Your task to perform on an android device: turn on notifications settings in the gmail app Image 0: 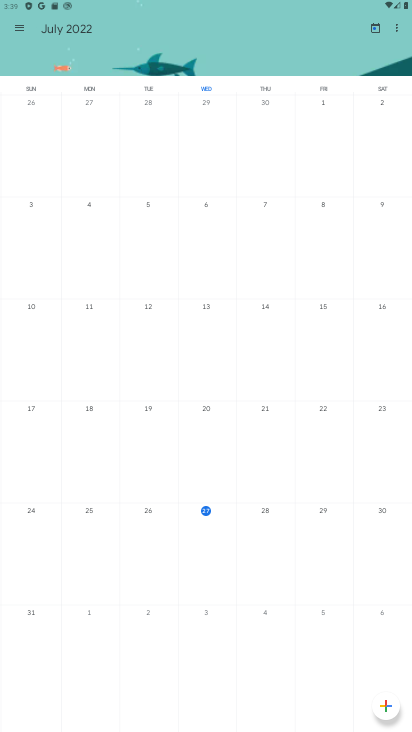
Step 0: press home button
Your task to perform on an android device: turn on notifications settings in the gmail app Image 1: 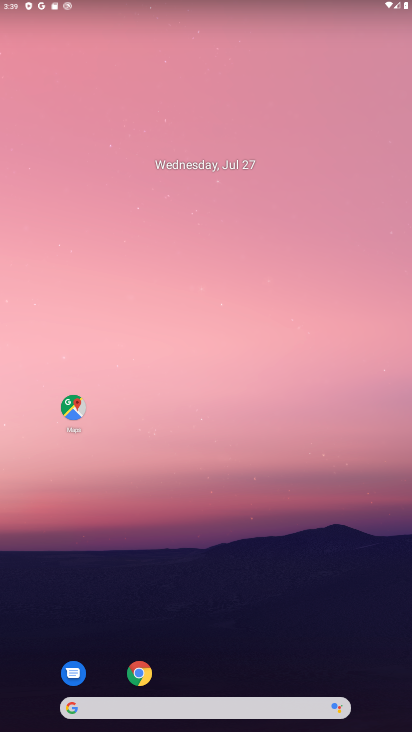
Step 1: drag from (250, 646) to (273, 118)
Your task to perform on an android device: turn on notifications settings in the gmail app Image 2: 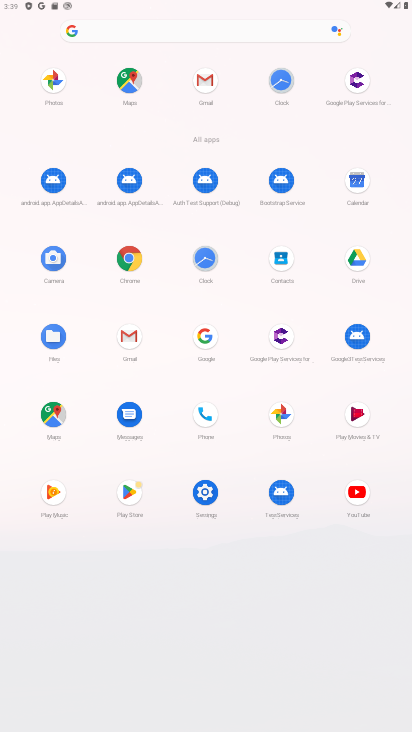
Step 2: click (200, 83)
Your task to perform on an android device: turn on notifications settings in the gmail app Image 3: 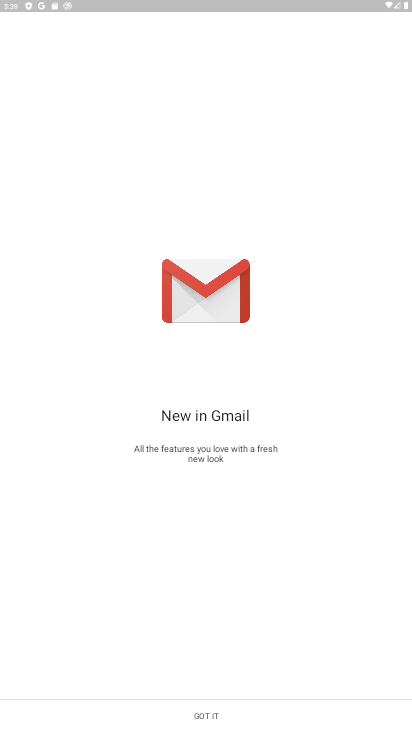
Step 3: click (216, 718)
Your task to perform on an android device: turn on notifications settings in the gmail app Image 4: 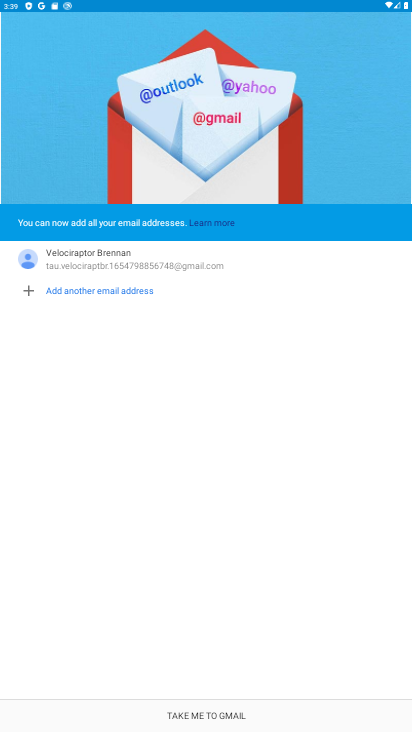
Step 4: click (216, 726)
Your task to perform on an android device: turn on notifications settings in the gmail app Image 5: 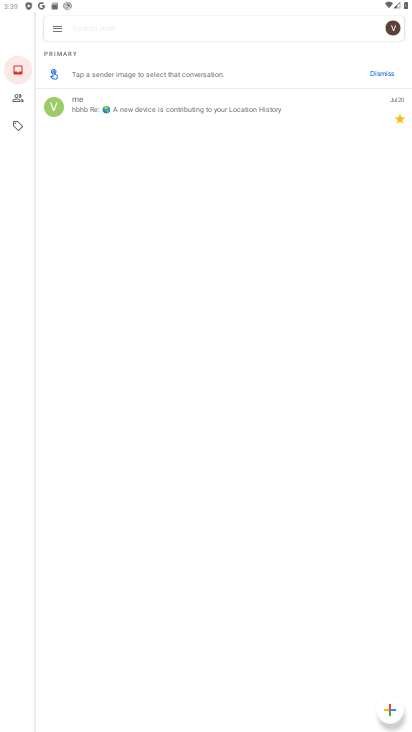
Step 5: click (58, 30)
Your task to perform on an android device: turn on notifications settings in the gmail app Image 6: 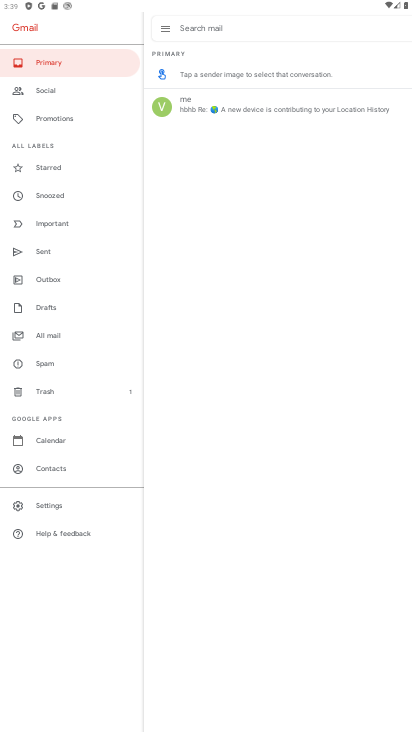
Step 6: click (40, 505)
Your task to perform on an android device: turn on notifications settings in the gmail app Image 7: 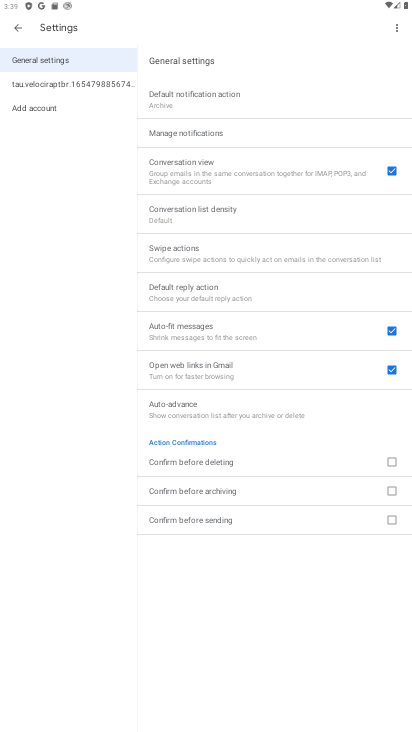
Step 7: click (119, 89)
Your task to perform on an android device: turn on notifications settings in the gmail app Image 8: 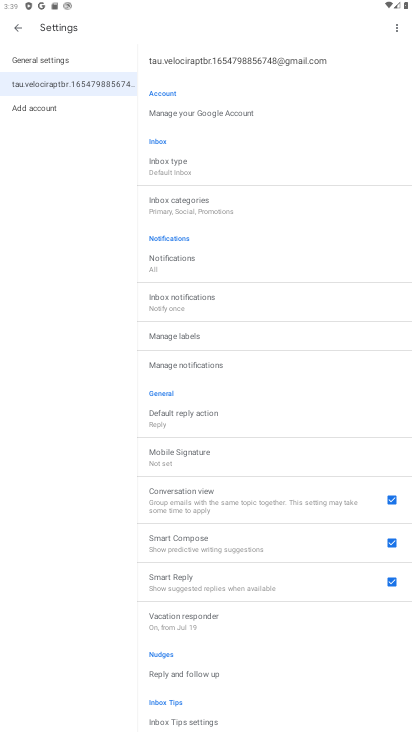
Step 8: click (228, 354)
Your task to perform on an android device: turn on notifications settings in the gmail app Image 9: 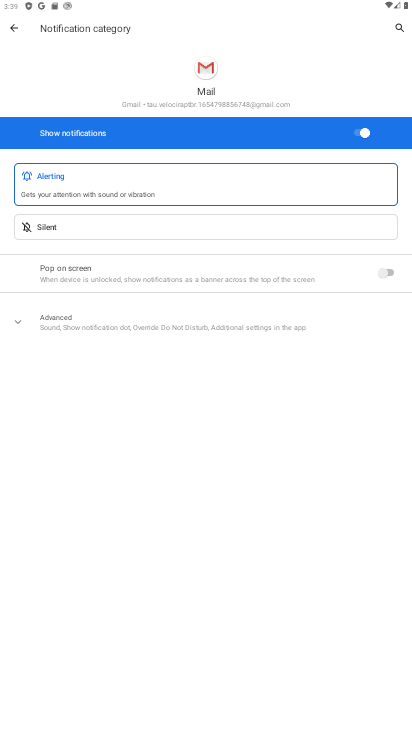
Step 9: click (388, 285)
Your task to perform on an android device: turn on notifications settings in the gmail app Image 10: 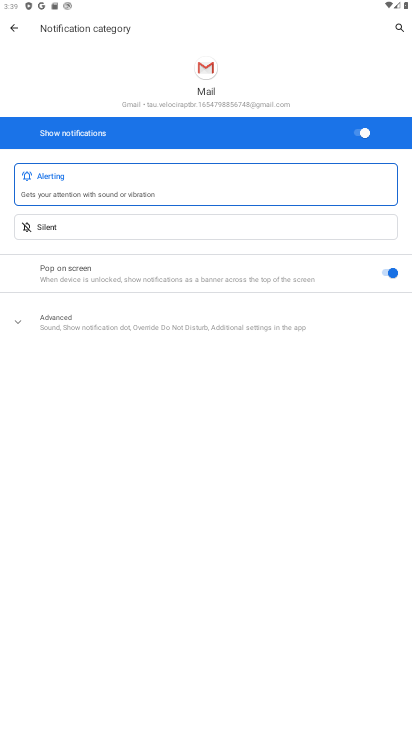
Step 10: task complete